Your task to perform on an android device: View the shopping cart on bestbuy. Search for apple airpods on bestbuy, select the first entry, add it to the cart, then select checkout. Image 0: 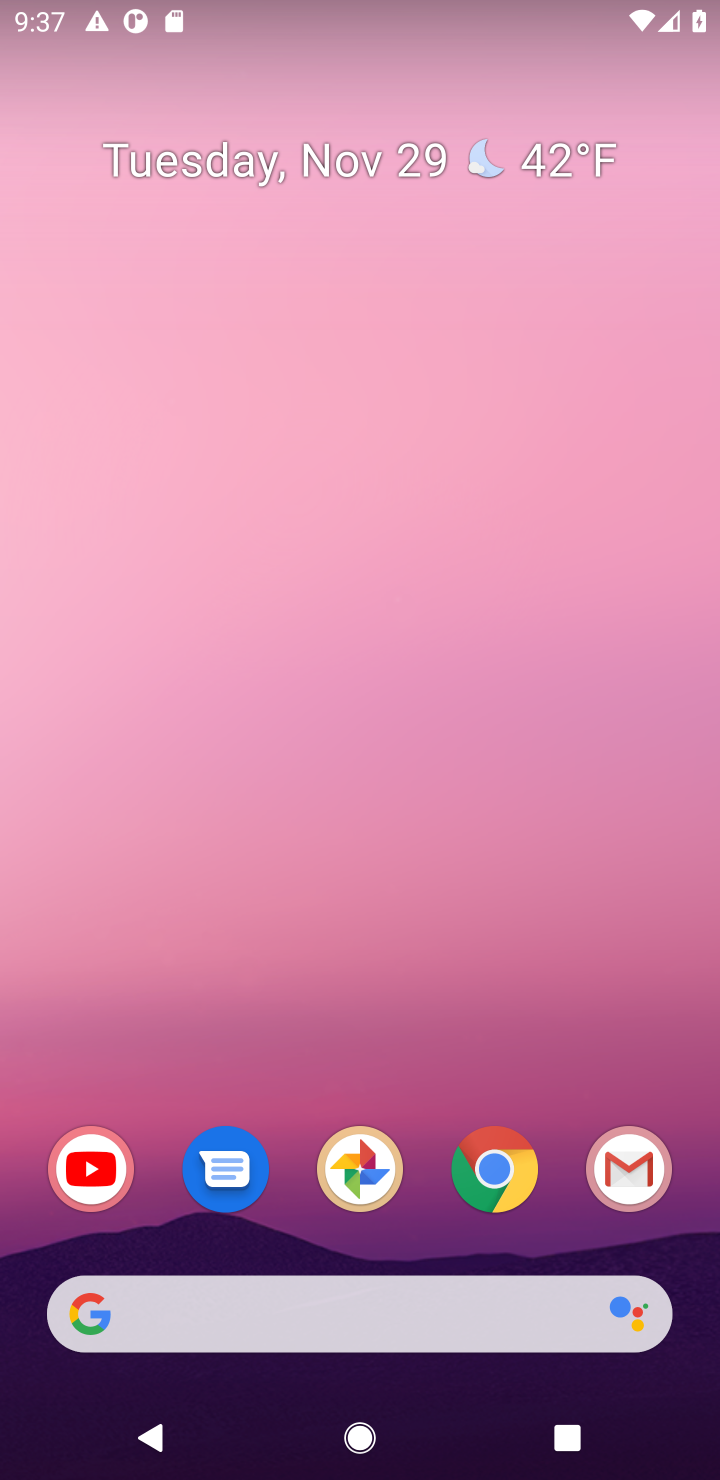
Step 0: click (387, 1338)
Your task to perform on an android device: View the shopping cart on bestbuy. Search for apple airpods on bestbuy, select the first entry, add it to the cart, then select checkout. Image 1: 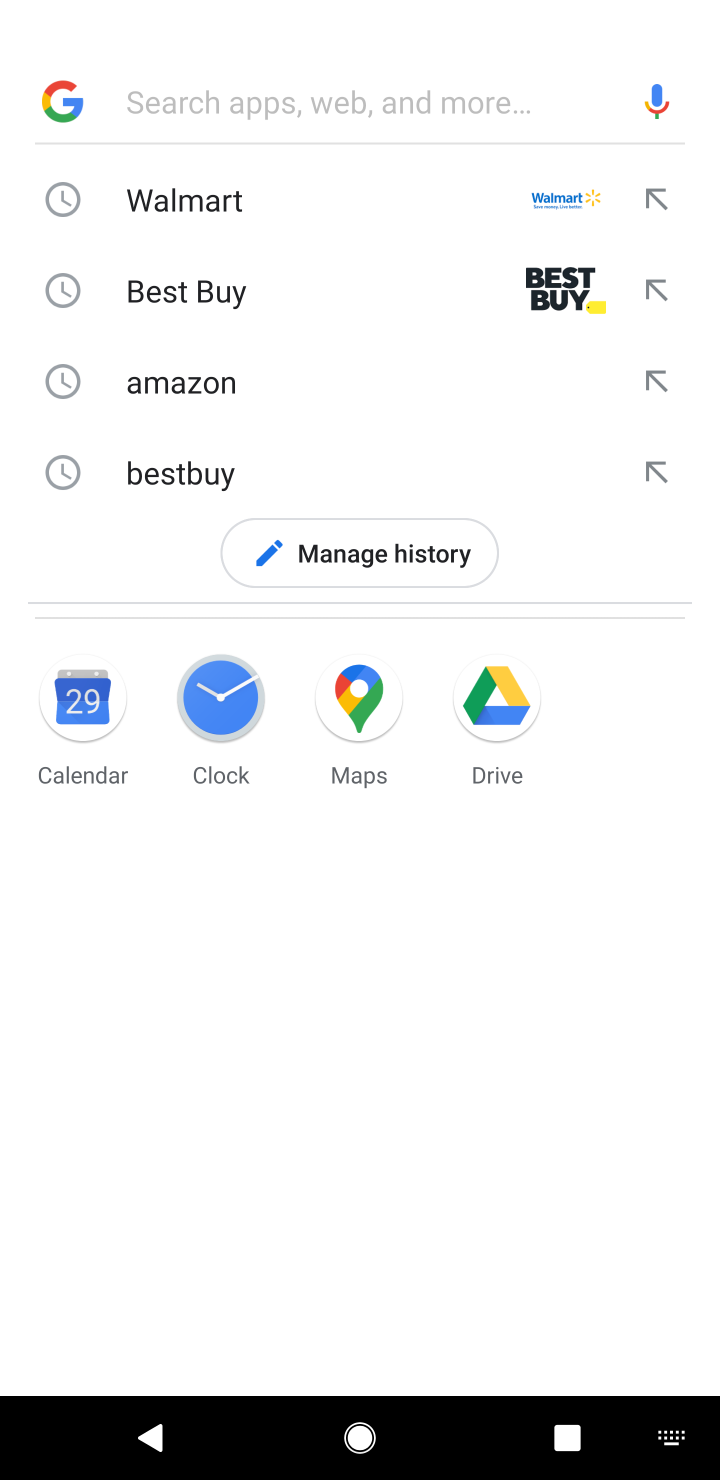
Step 1: type "bestbuy"
Your task to perform on an android device: View the shopping cart on bestbuy. Search for apple airpods on bestbuy, select the first entry, add it to the cart, then select checkout. Image 2: 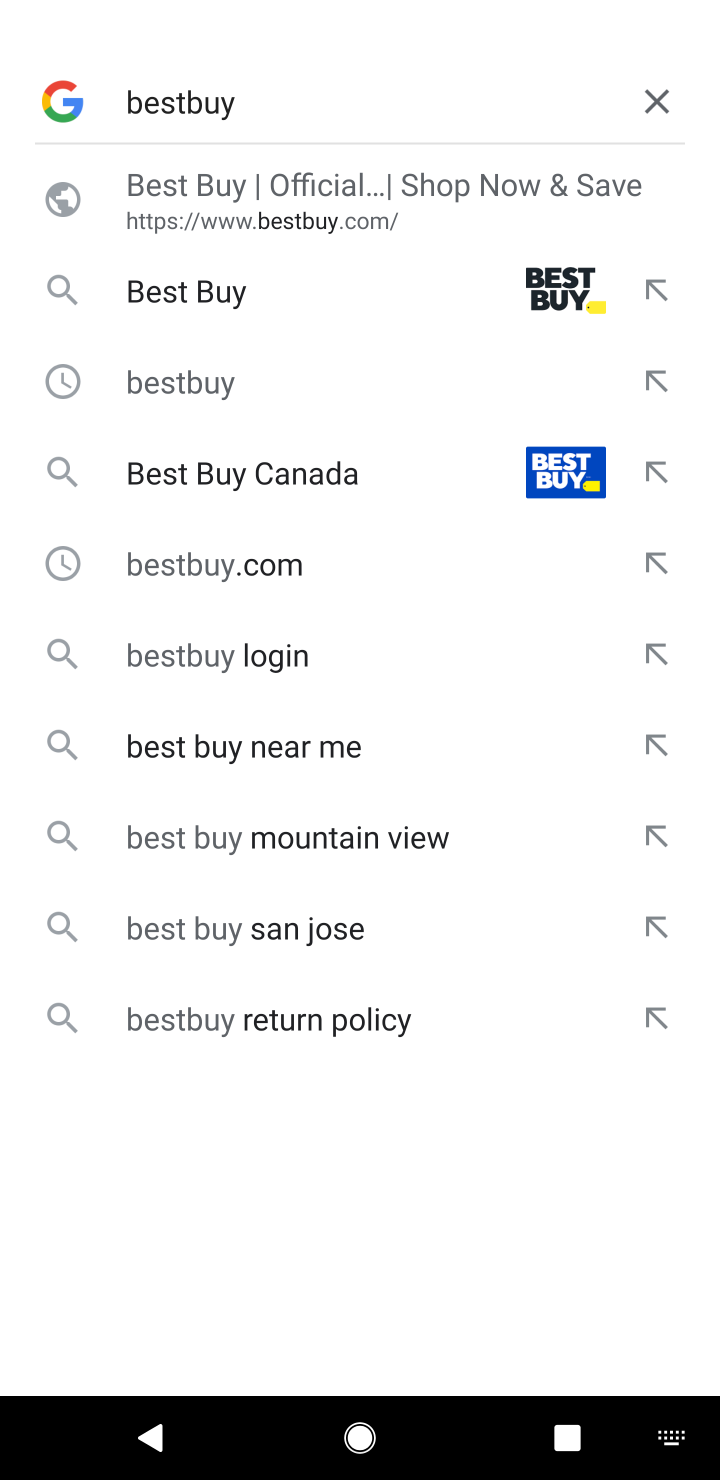
Step 2: click (234, 329)
Your task to perform on an android device: View the shopping cart on bestbuy. Search for apple airpods on bestbuy, select the first entry, add it to the cart, then select checkout. Image 3: 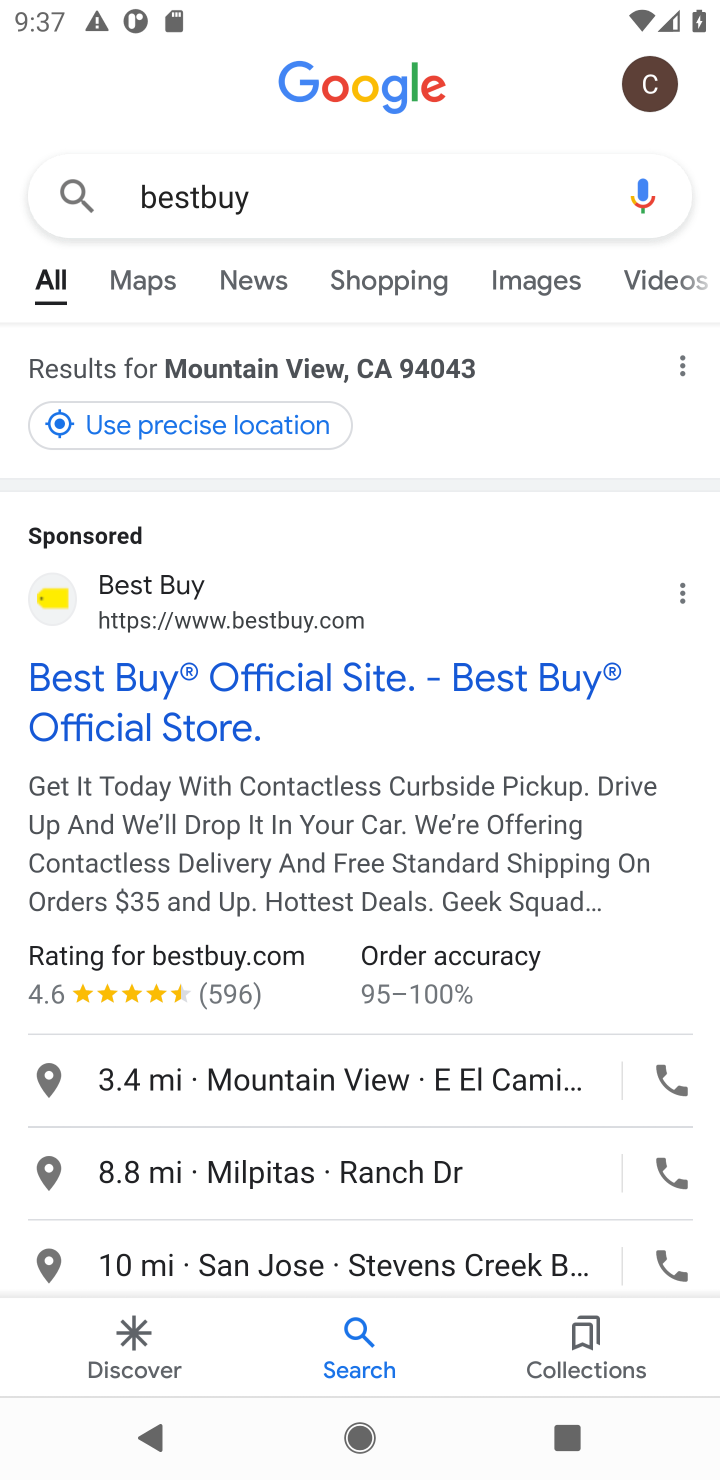
Step 3: click (57, 722)
Your task to perform on an android device: View the shopping cart on bestbuy. Search for apple airpods on bestbuy, select the first entry, add it to the cart, then select checkout. Image 4: 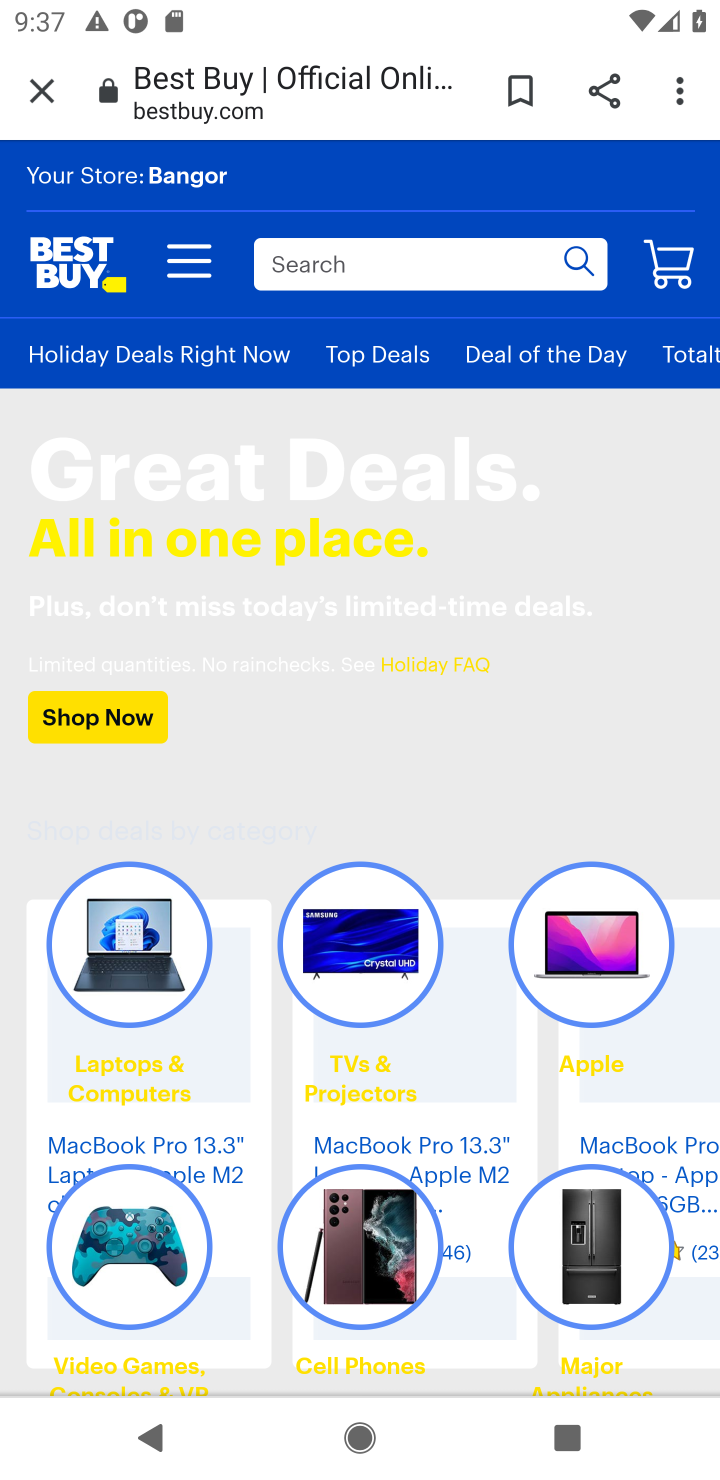
Step 4: click (395, 265)
Your task to perform on an android device: View the shopping cart on bestbuy. Search for apple airpods on bestbuy, select the first entry, add it to the cart, then select checkout. Image 5: 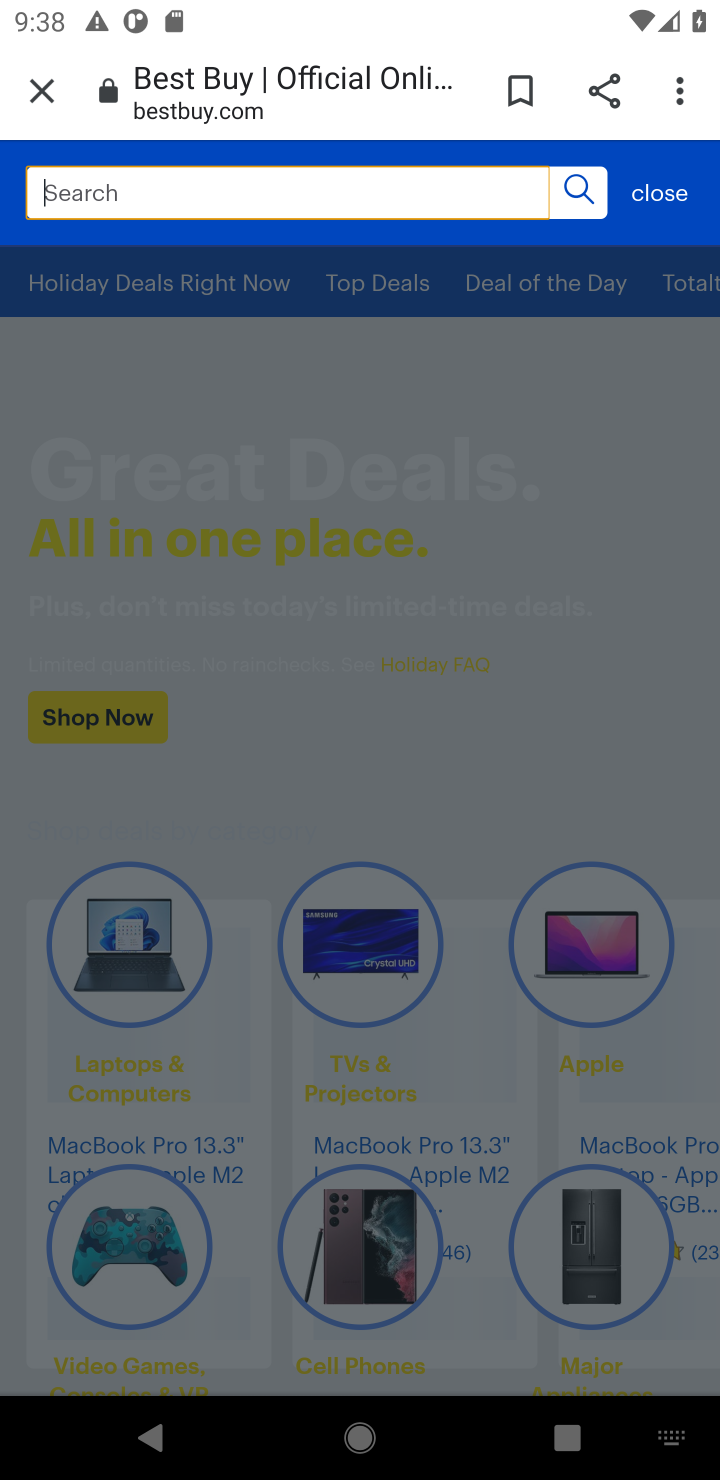
Step 5: type "apple airpod"
Your task to perform on an android device: View the shopping cart on bestbuy. Search for apple airpods on bestbuy, select the first entry, add it to the cart, then select checkout. Image 6: 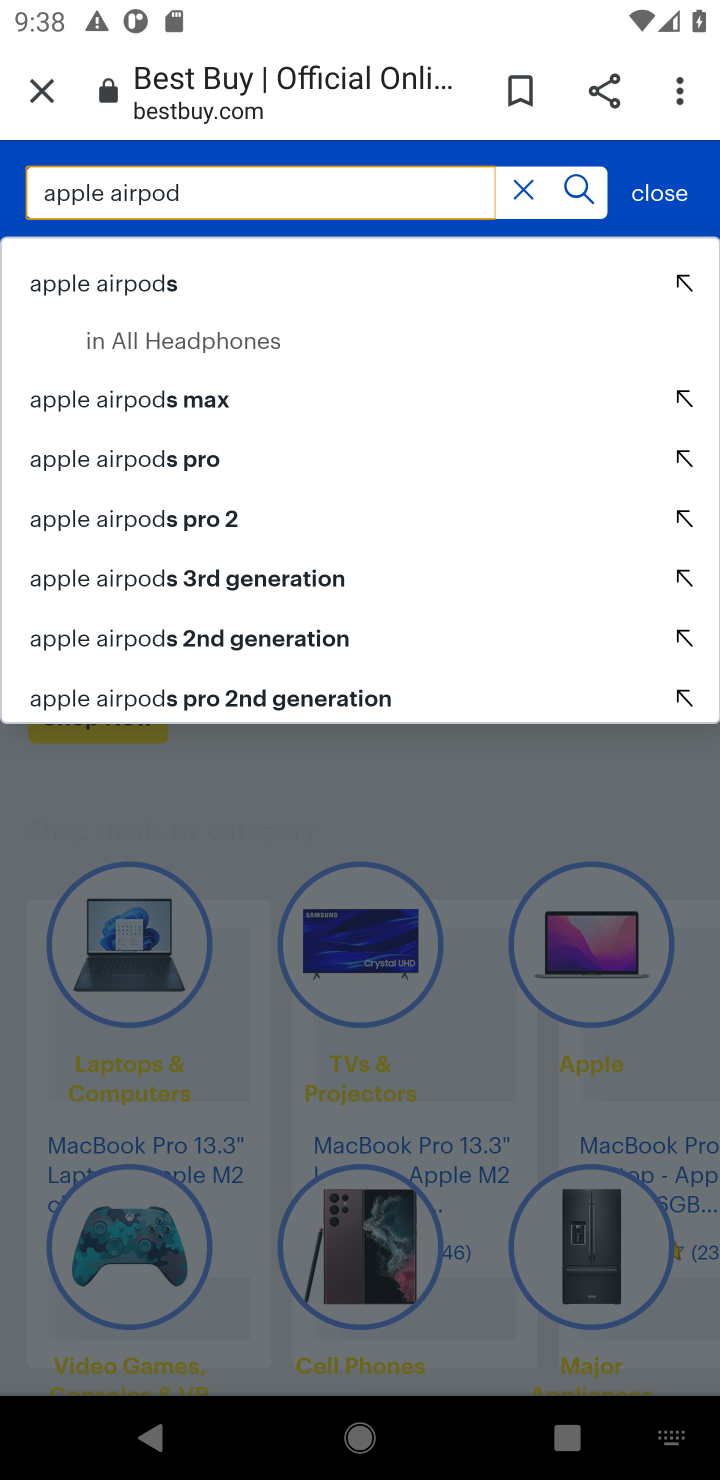
Step 6: click (108, 315)
Your task to perform on an android device: View the shopping cart on bestbuy. Search for apple airpods on bestbuy, select the first entry, add it to the cart, then select checkout. Image 7: 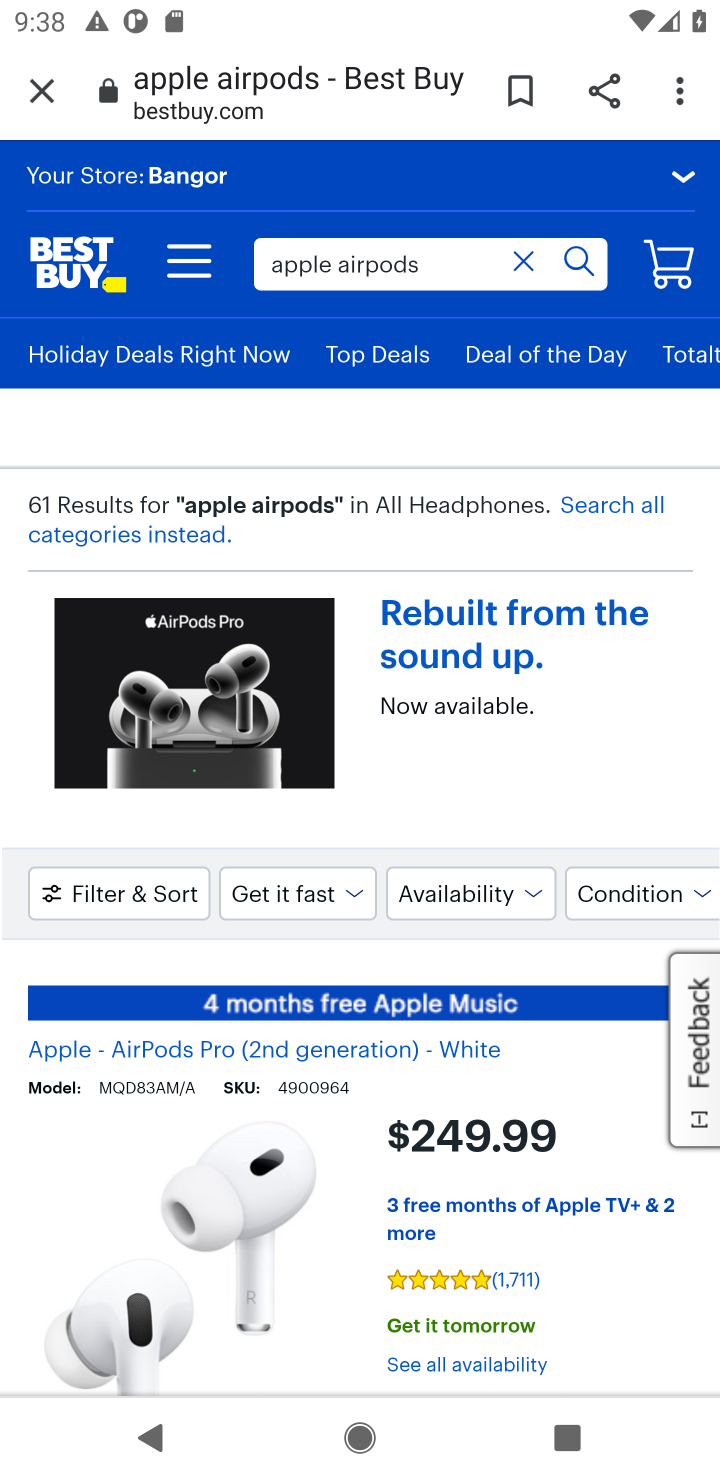
Step 7: drag from (312, 1306) to (285, 651)
Your task to perform on an android device: View the shopping cart on bestbuy. Search for apple airpods on bestbuy, select the first entry, add it to the cart, then select checkout. Image 8: 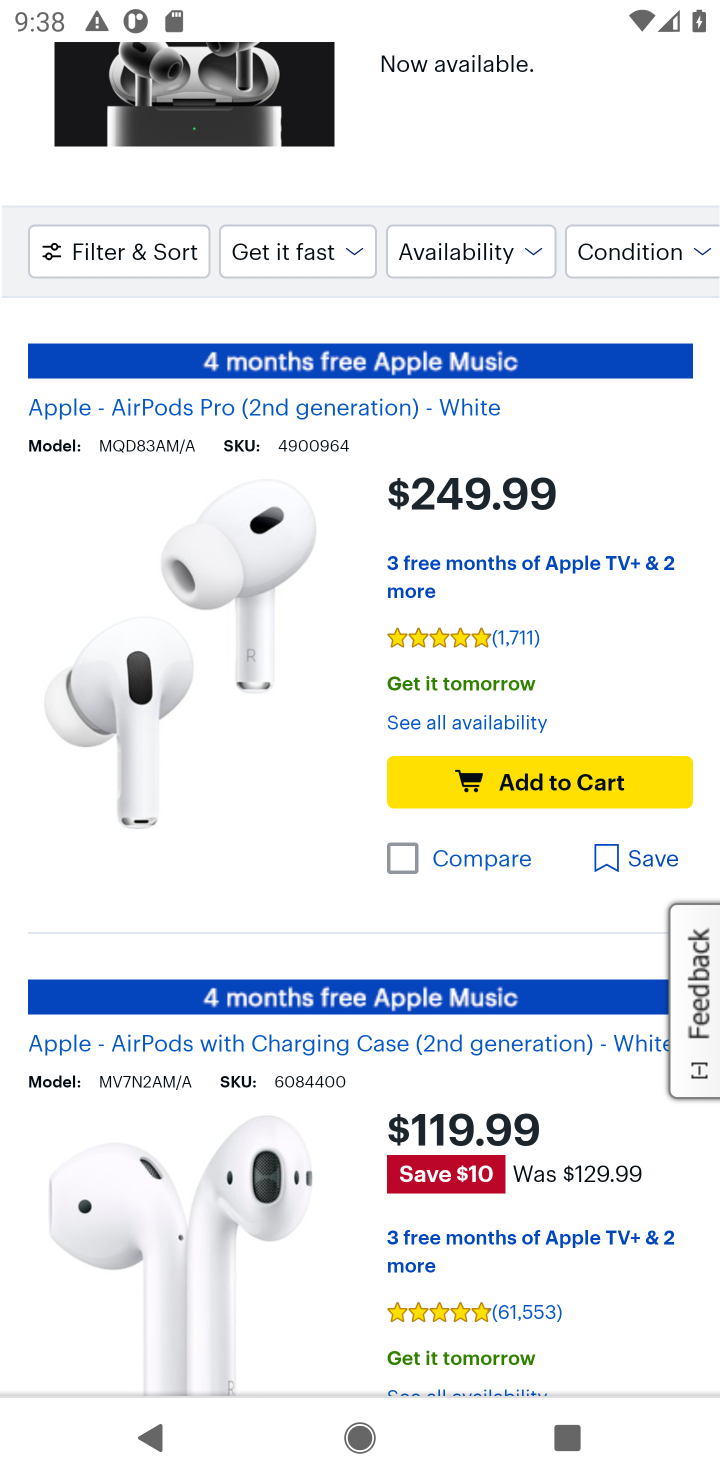
Step 8: click (562, 792)
Your task to perform on an android device: View the shopping cart on bestbuy. Search for apple airpods on bestbuy, select the first entry, add it to the cart, then select checkout. Image 9: 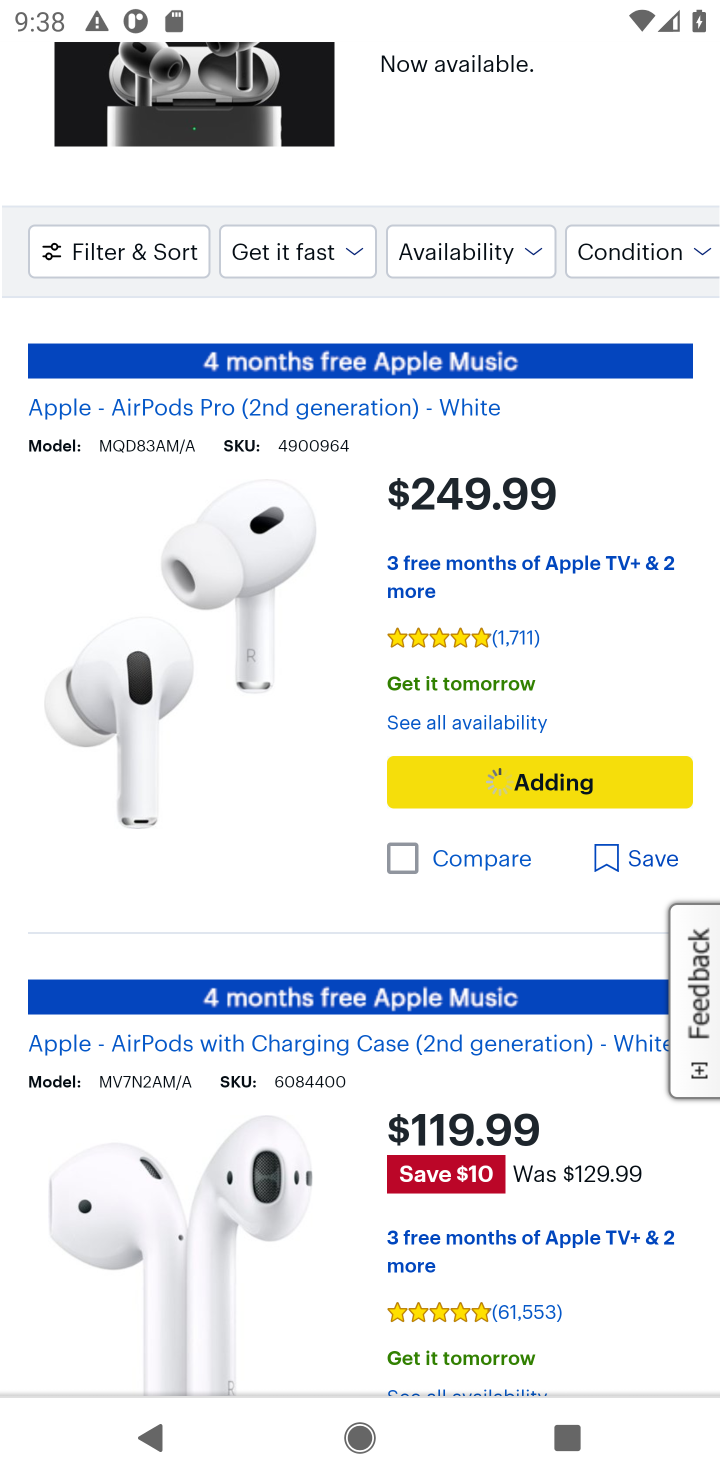
Step 9: task complete